Your task to perform on an android device: When is my next appointment? Image 0: 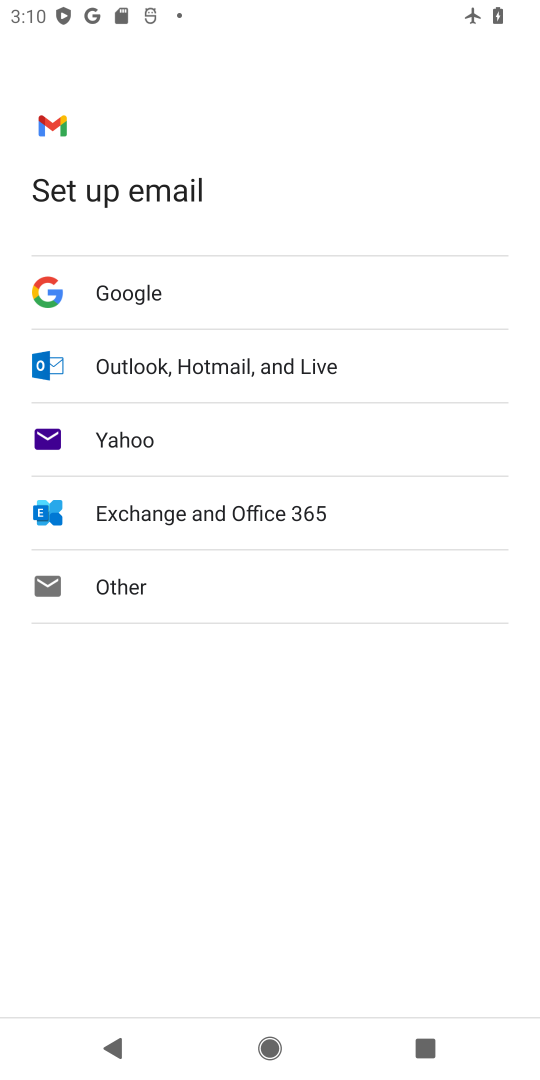
Step 0: press home button
Your task to perform on an android device: When is my next appointment? Image 1: 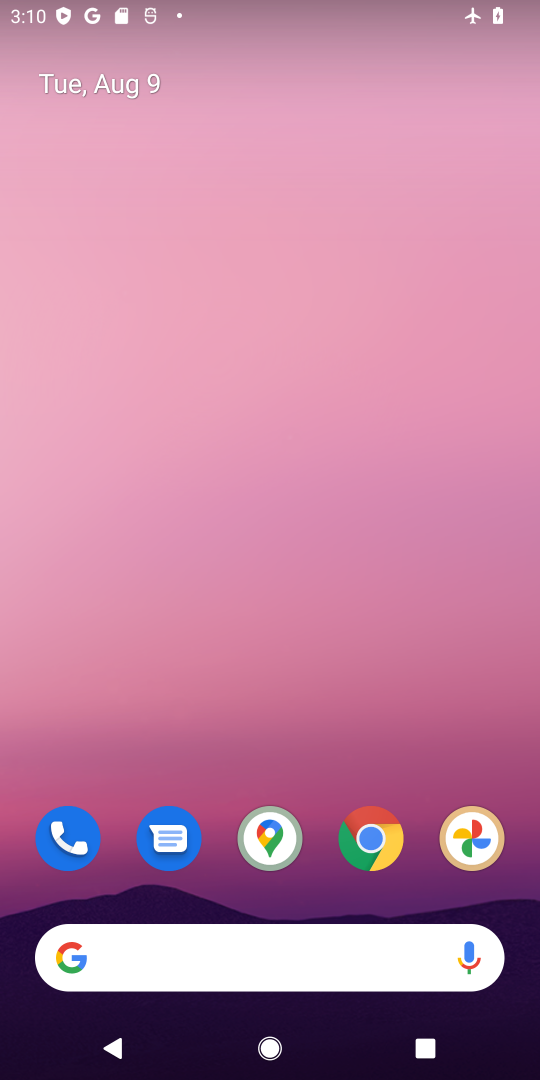
Step 1: drag from (313, 773) to (354, 17)
Your task to perform on an android device: When is my next appointment? Image 2: 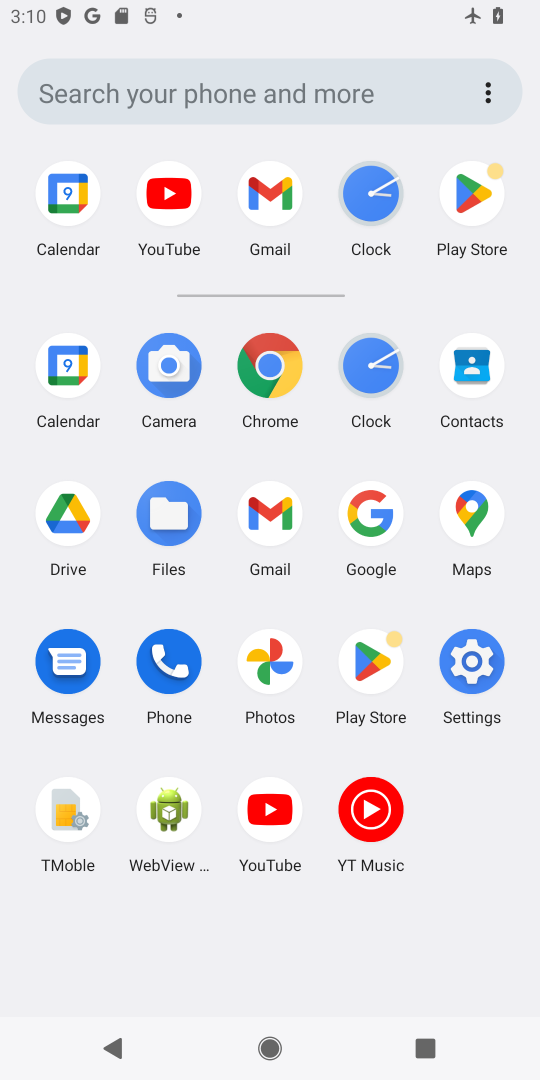
Step 2: click (78, 356)
Your task to perform on an android device: When is my next appointment? Image 3: 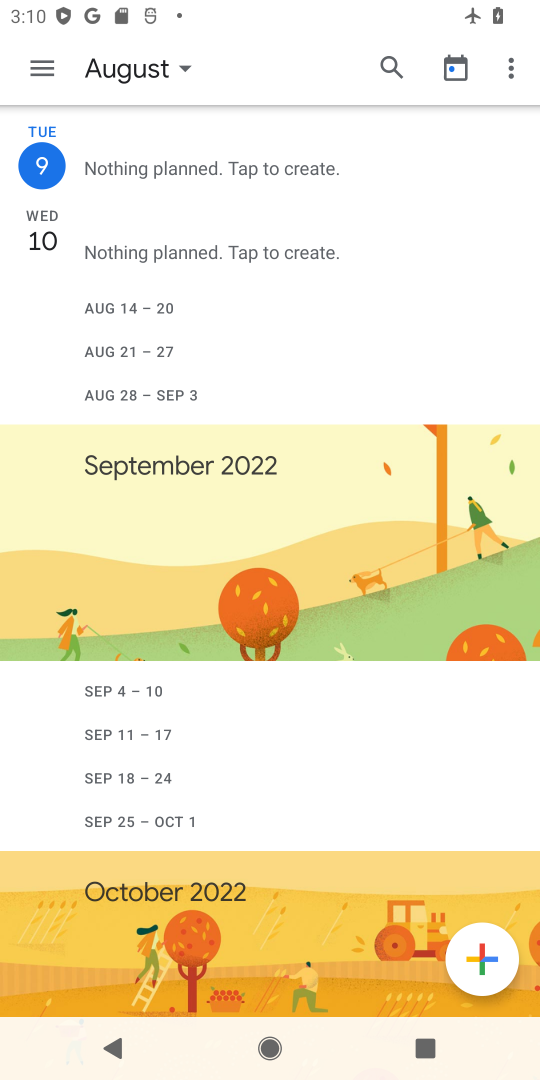
Step 3: click (164, 64)
Your task to perform on an android device: When is my next appointment? Image 4: 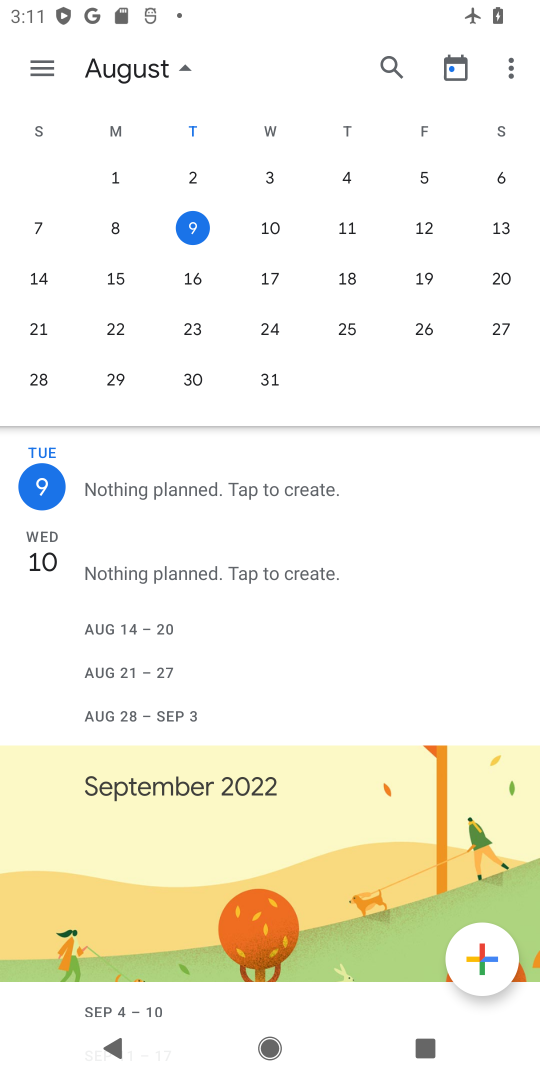
Step 4: click (30, 79)
Your task to perform on an android device: When is my next appointment? Image 5: 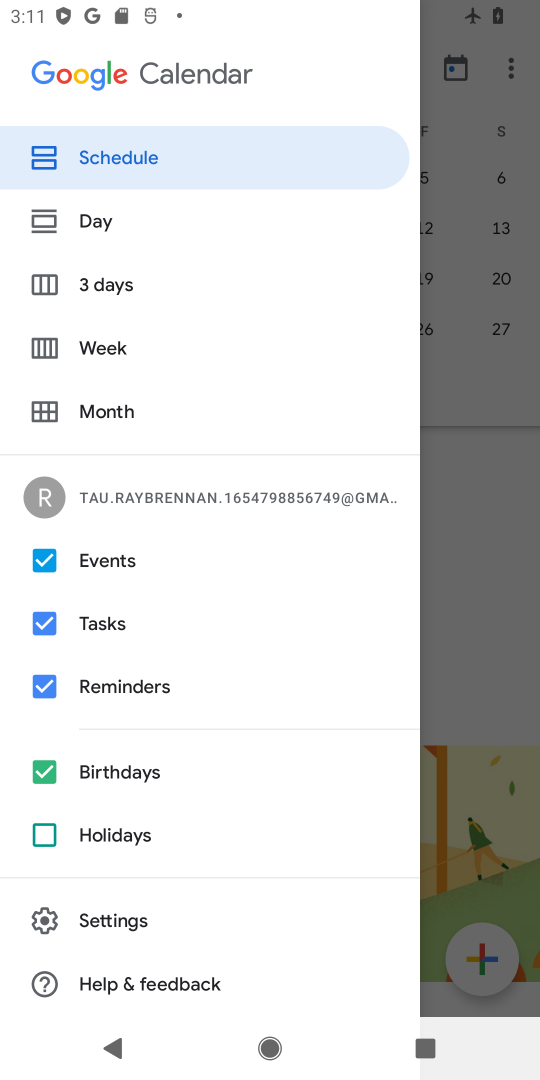
Step 5: click (112, 291)
Your task to perform on an android device: When is my next appointment? Image 6: 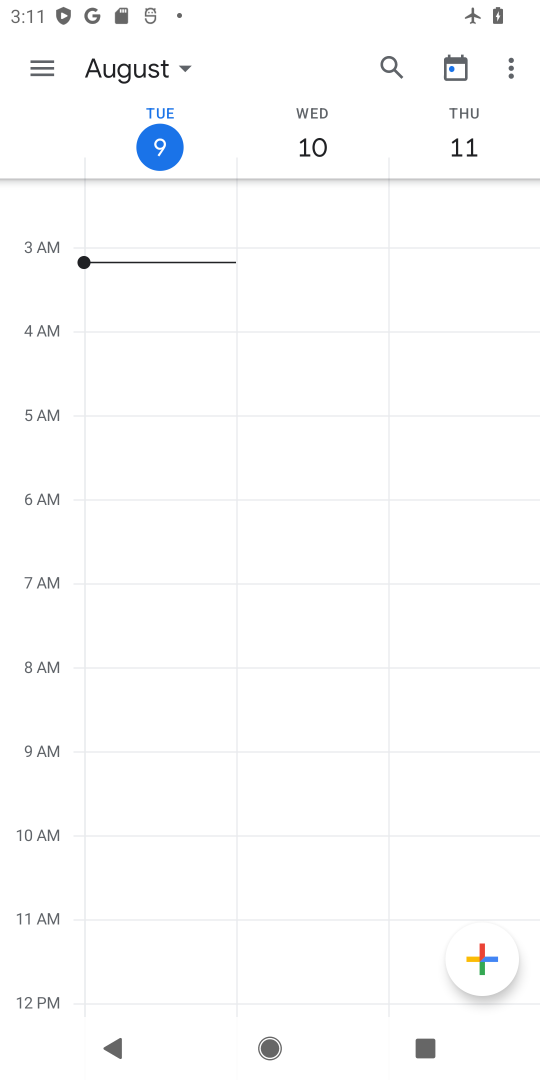
Step 6: task complete